Your task to perform on an android device: make emails show in primary in the gmail app Image 0: 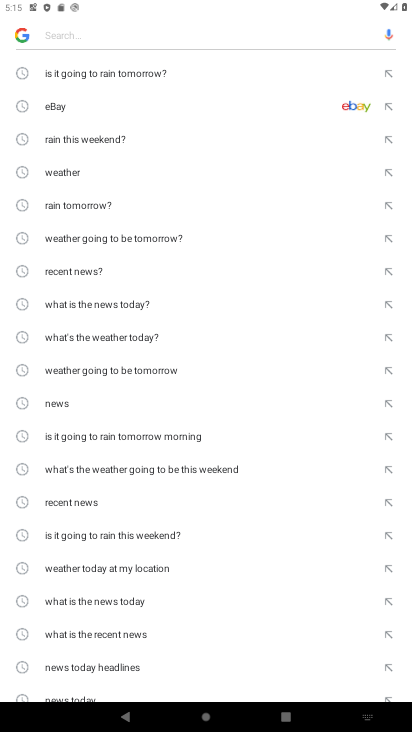
Step 0: press home button
Your task to perform on an android device: make emails show in primary in the gmail app Image 1: 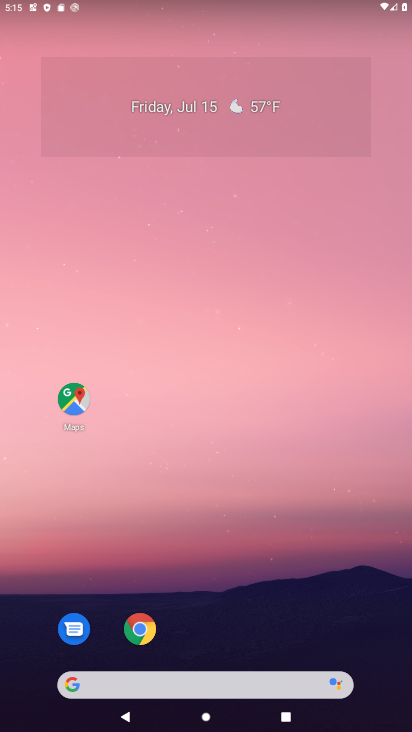
Step 1: press home button
Your task to perform on an android device: make emails show in primary in the gmail app Image 2: 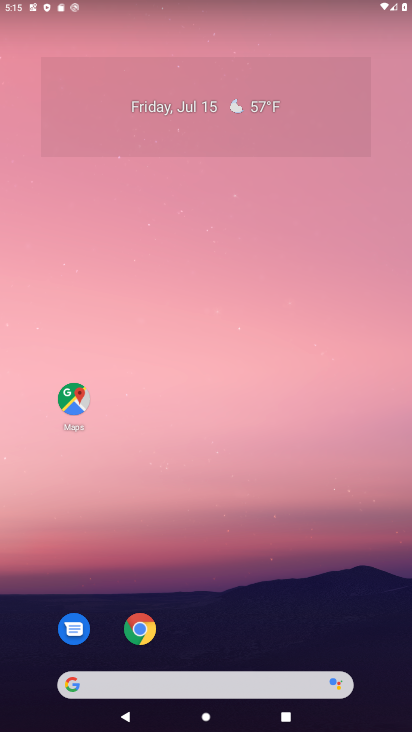
Step 2: drag from (278, 642) to (294, 33)
Your task to perform on an android device: make emails show in primary in the gmail app Image 3: 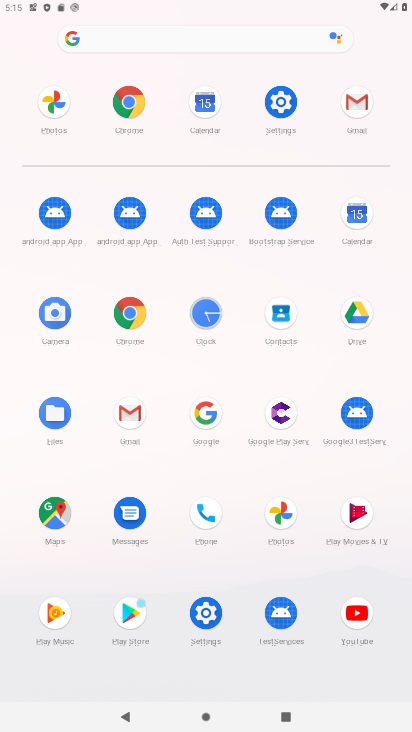
Step 3: click (357, 111)
Your task to perform on an android device: make emails show in primary in the gmail app Image 4: 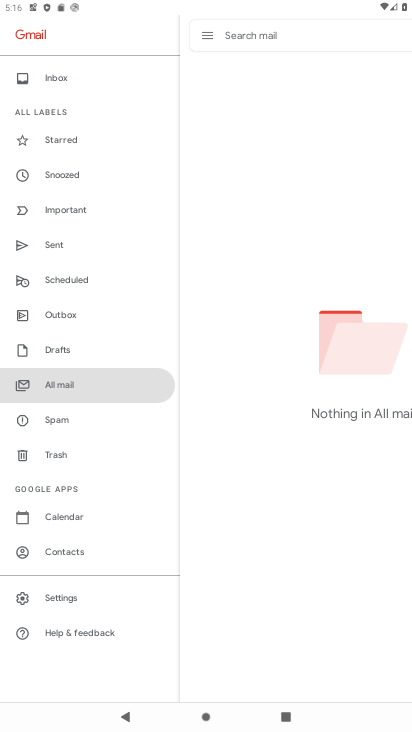
Step 4: click (63, 594)
Your task to perform on an android device: make emails show in primary in the gmail app Image 5: 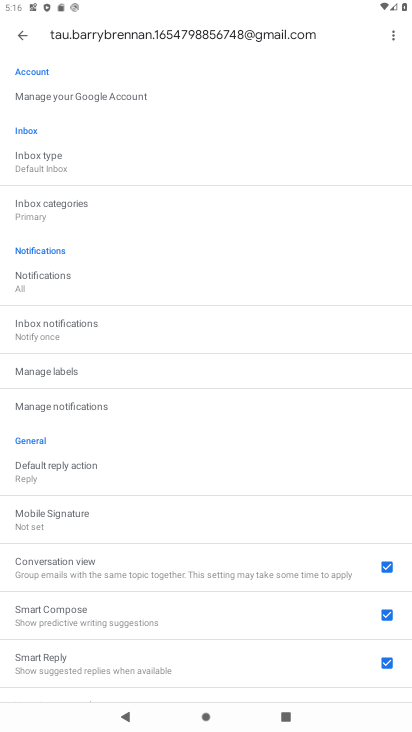
Step 5: click (43, 220)
Your task to perform on an android device: make emails show in primary in the gmail app Image 6: 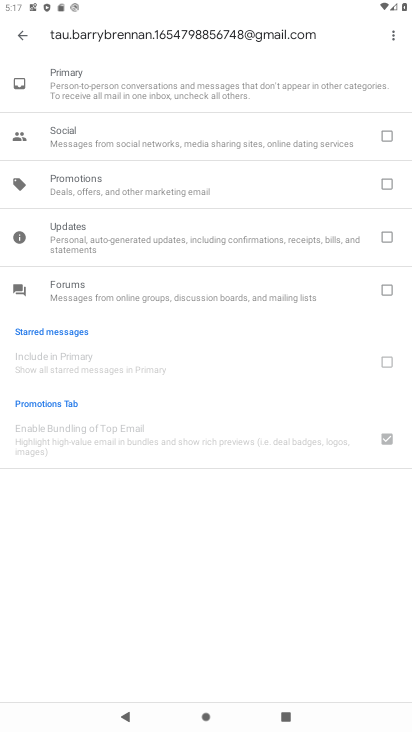
Step 6: task complete